Your task to perform on an android device: snooze an email in the gmail app Image 0: 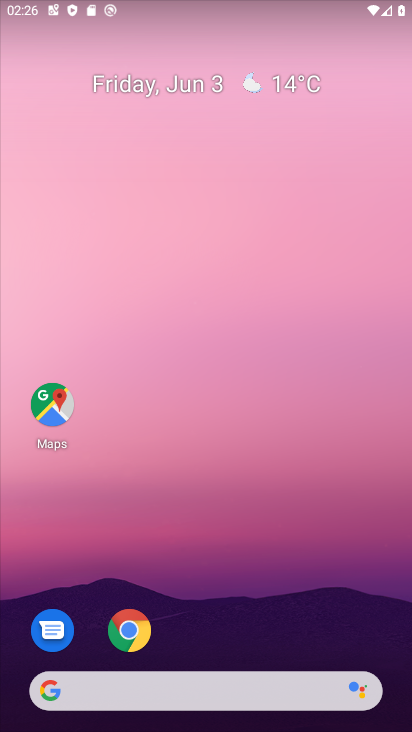
Step 0: drag from (399, 697) to (386, 77)
Your task to perform on an android device: snooze an email in the gmail app Image 1: 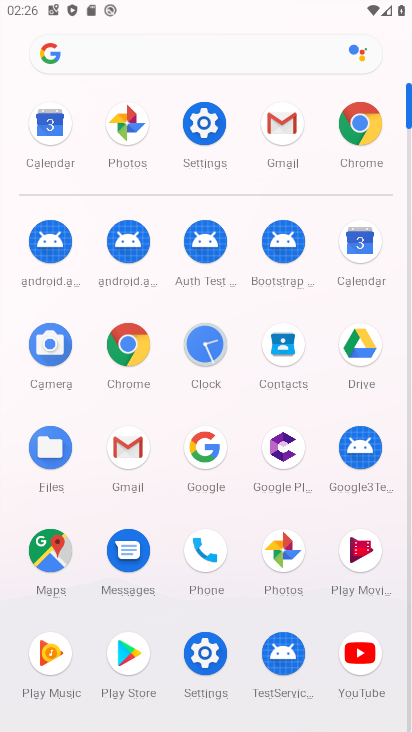
Step 1: click (133, 446)
Your task to perform on an android device: snooze an email in the gmail app Image 2: 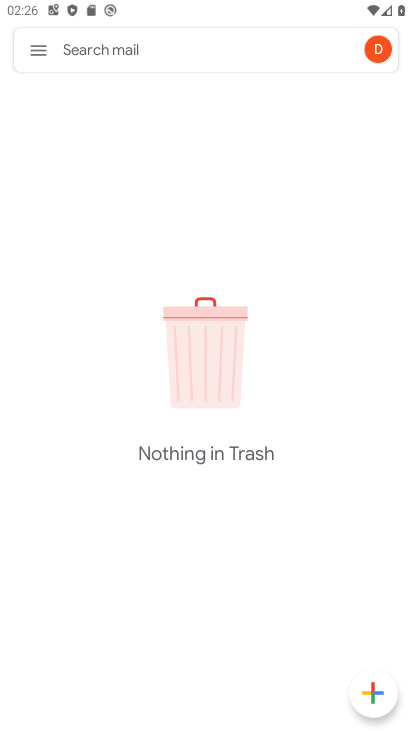
Step 2: click (43, 46)
Your task to perform on an android device: snooze an email in the gmail app Image 3: 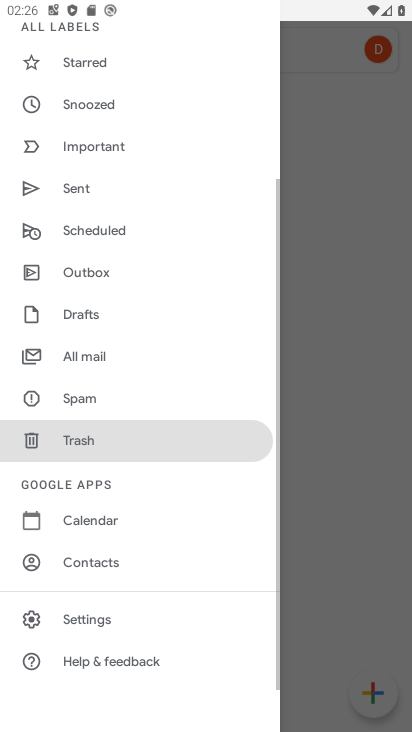
Step 3: drag from (194, 72) to (209, 495)
Your task to perform on an android device: snooze an email in the gmail app Image 4: 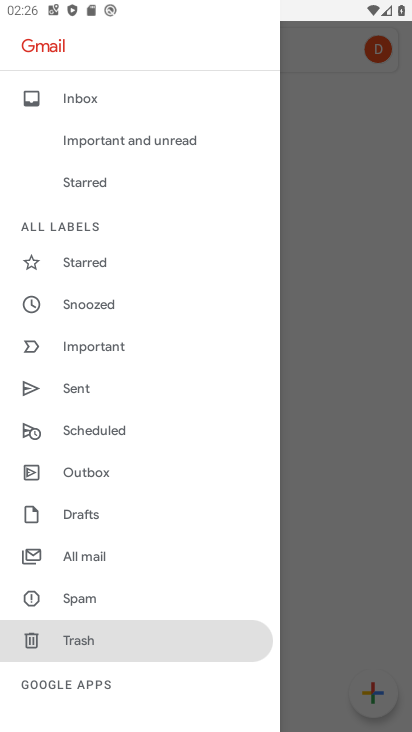
Step 4: click (91, 95)
Your task to perform on an android device: snooze an email in the gmail app Image 5: 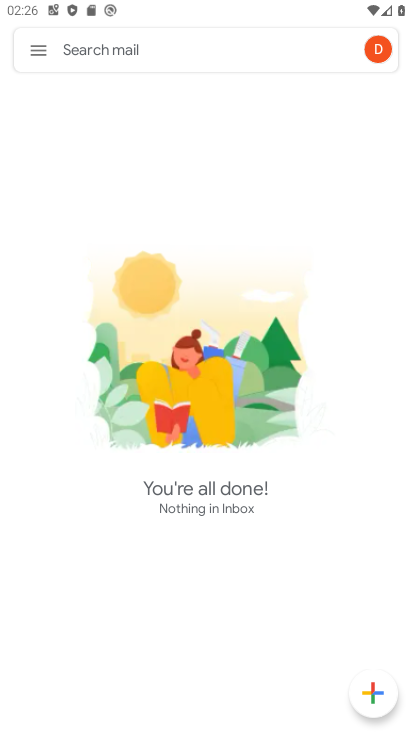
Step 5: task complete